Your task to perform on an android device: empty trash in the gmail app Image 0: 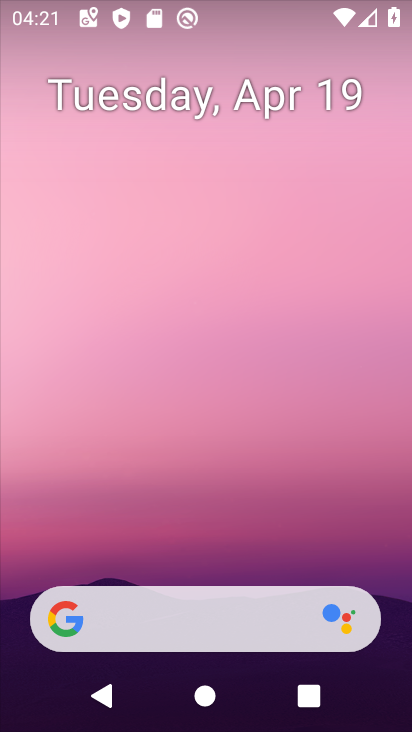
Step 0: drag from (233, 567) to (269, 127)
Your task to perform on an android device: empty trash in the gmail app Image 1: 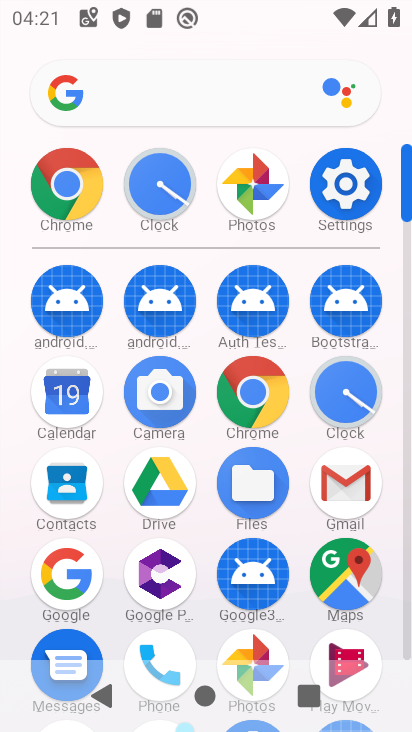
Step 1: click (346, 479)
Your task to perform on an android device: empty trash in the gmail app Image 2: 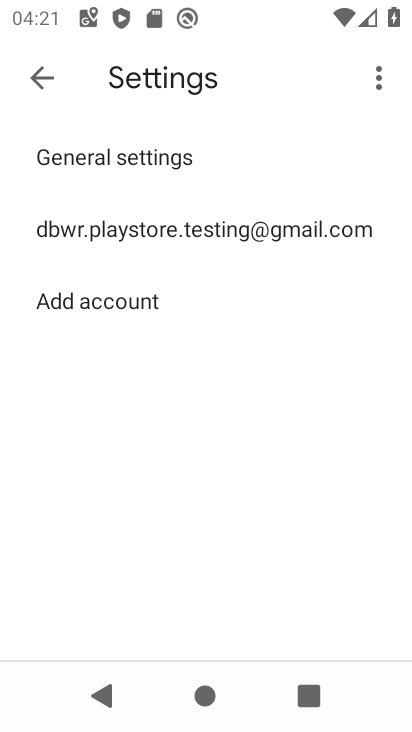
Step 2: click (173, 232)
Your task to perform on an android device: empty trash in the gmail app Image 3: 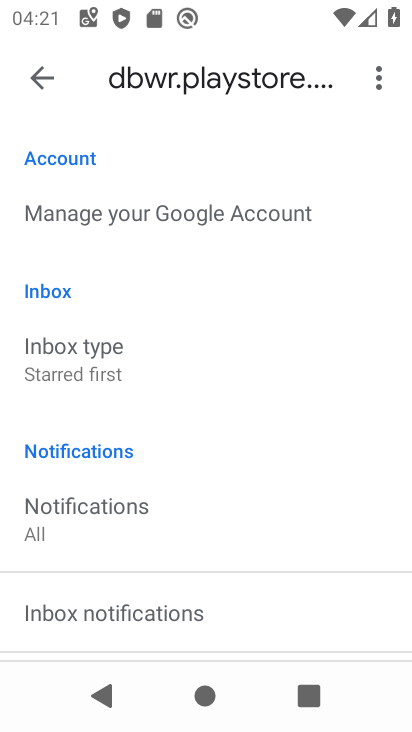
Step 3: press back button
Your task to perform on an android device: empty trash in the gmail app Image 4: 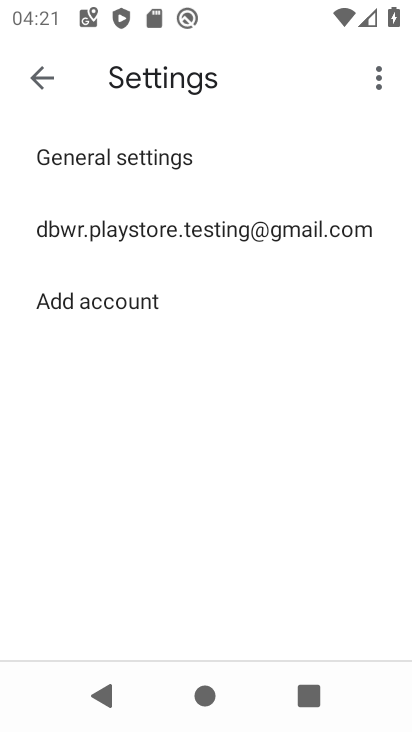
Step 4: press back button
Your task to perform on an android device: empty trash in the gmail app Image 5: 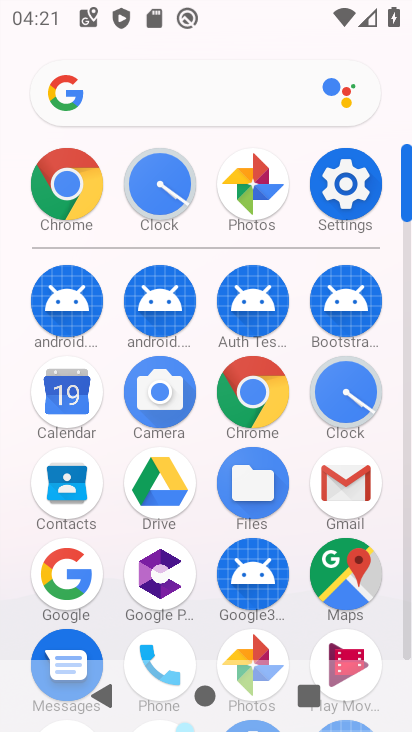
Step 5: click (346, 481)
Your task to perform on an android device: empty trash in the gmail app Image 6: 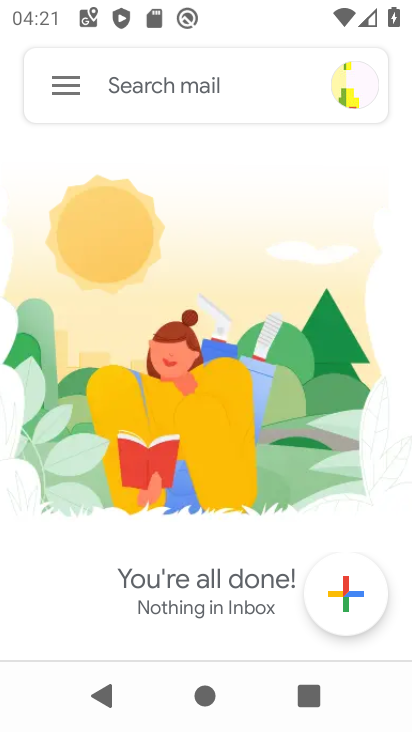
Step 6: click (65, 93)
Your task to perform on an android device: empty trash in the gmail app Image 7: 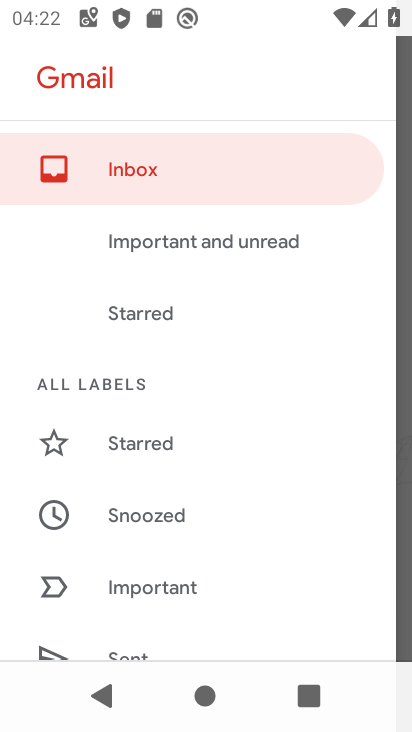
Step 7: drag from (119, 470) to (160, 392)
Your task to perform on an android device: empty trash in the gmail app Image 8: 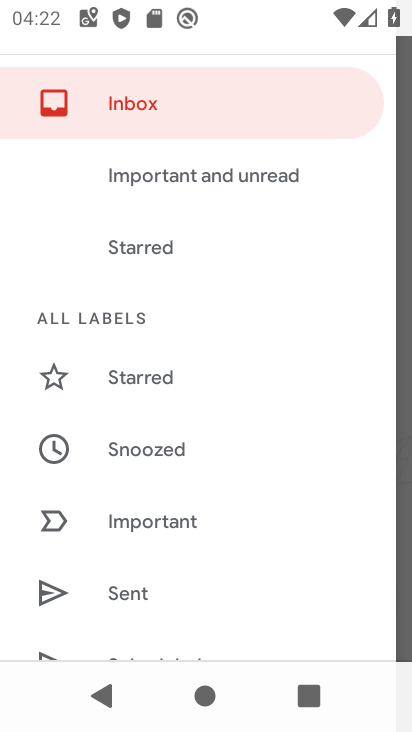
Step 8: drag from (142, 474) to (165, 390)
Your task to perform on an android device: empty trash in the gmail app Image 9: 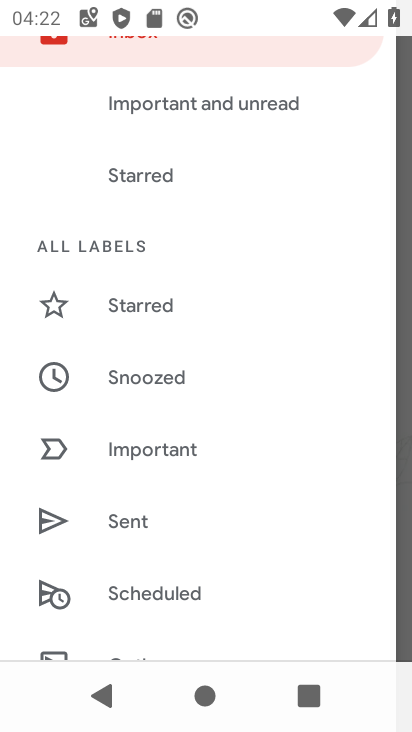
Step 9: drag from (147, 490) to (172, 421)
Your task to perform on an android device: empty trash in the gmail app Image 10: 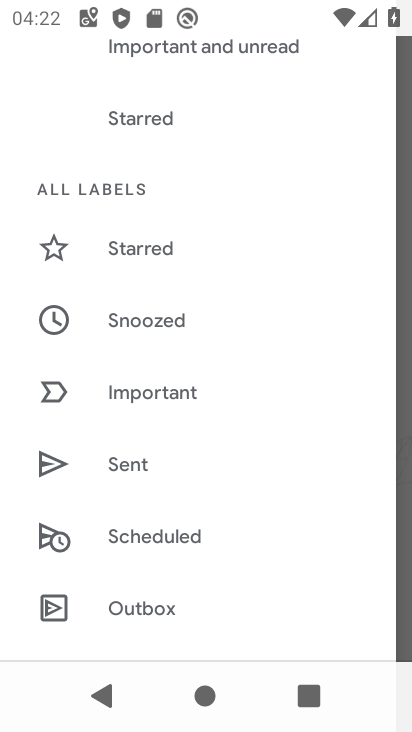
Step 10: drag from (126, 508) to (171, 425)
Your task to perform on an android device: empty trash in the gmail app Image 11: 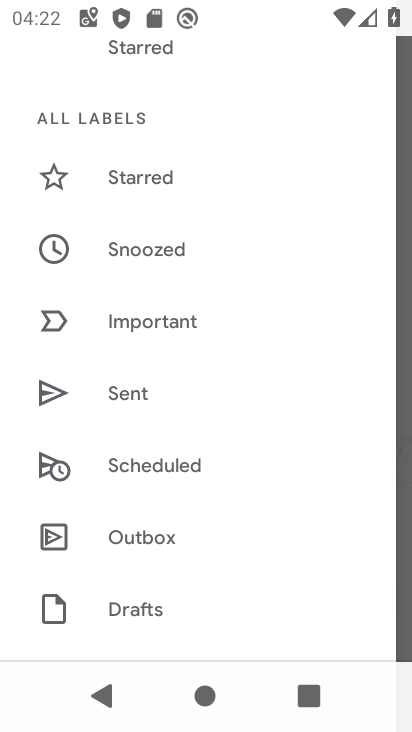
Step 11: drag from (122, 511) to (158, 436)
Your task to perform on an android device: empty trash in the gmail app Image 12: 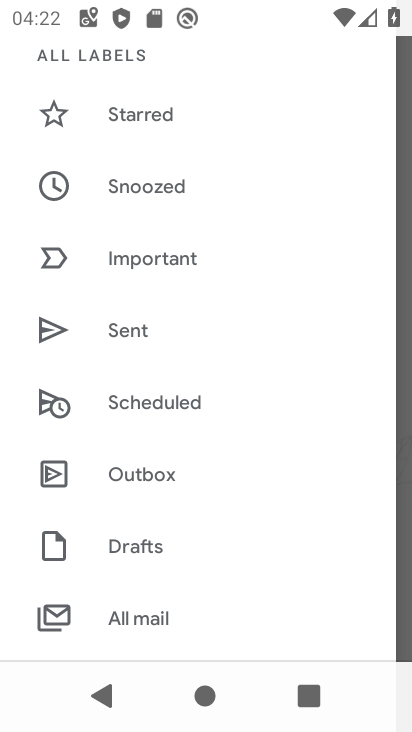
Step 12: drag from (137, 533) to (164, 452)
Your task to perform on an android device: empty trash in the gmail app Image 13: 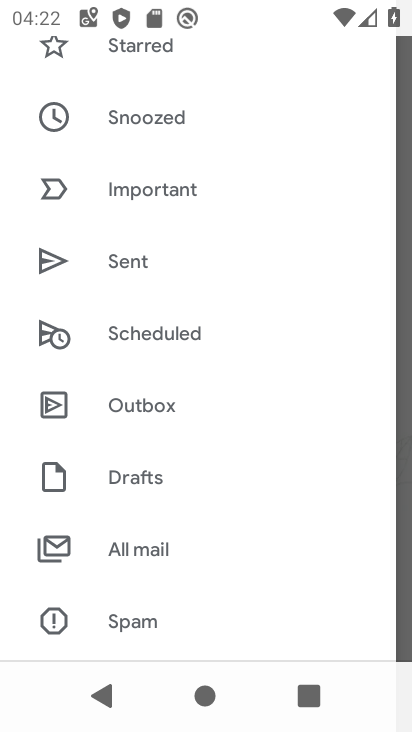
Step 13: drag from (124, 529) to (153, 443)
Your task to perform on an android device: empty trash in the gmail app Image 14: 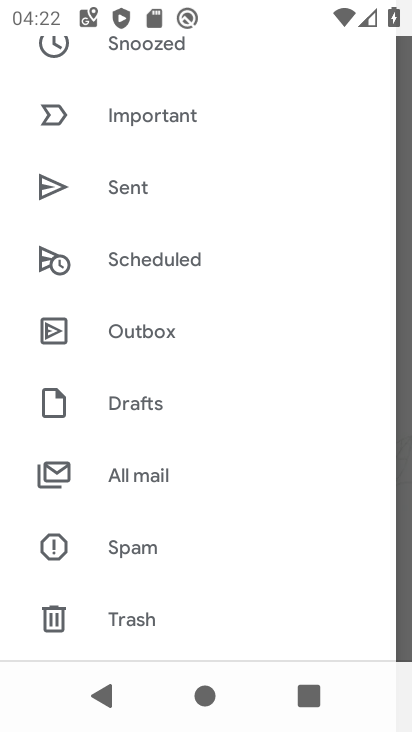
Step 14: drag from (122, 523) to (151, 436)
Your task to perform on an android device: empty trash in the gmail app Image 15: 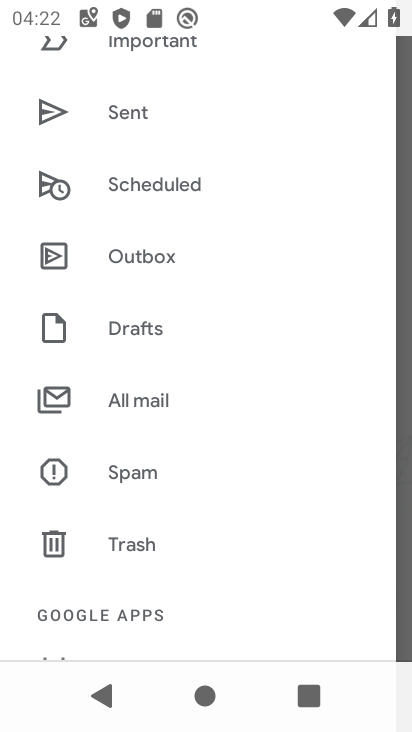
Step 15: drag from (114, 525) to (178, 448)
Your task to perform on an android device: empty trash in the gmail app Image 16: 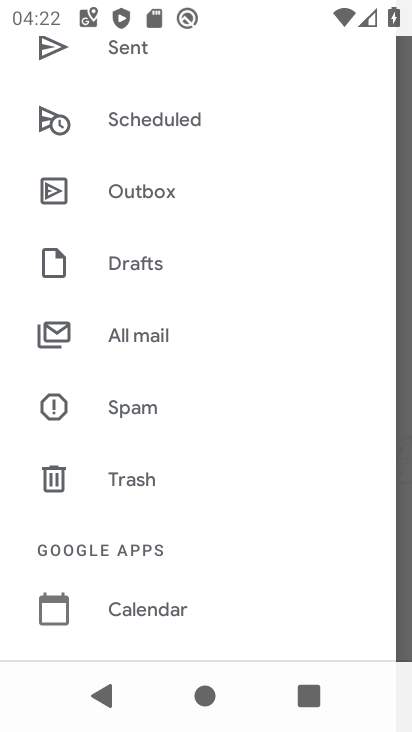
Step 16: click (144, 478)
Your task to perform on an android device: empty trash in the gmail app Image 17: 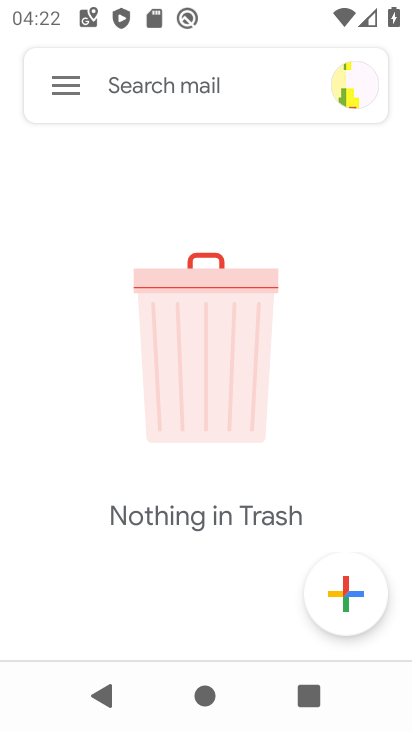
Step 17: task complete